Your task to perform on an android device: change alarm snooze length Image 0: 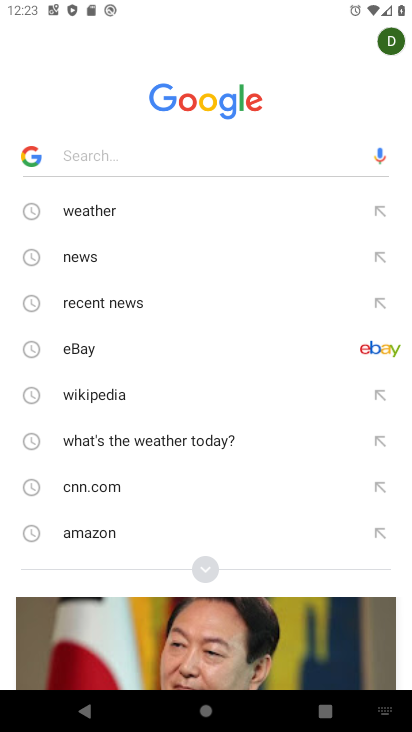
Step 0: press back button
Your task to perform on an android device: change alarm snooze length Image 1: 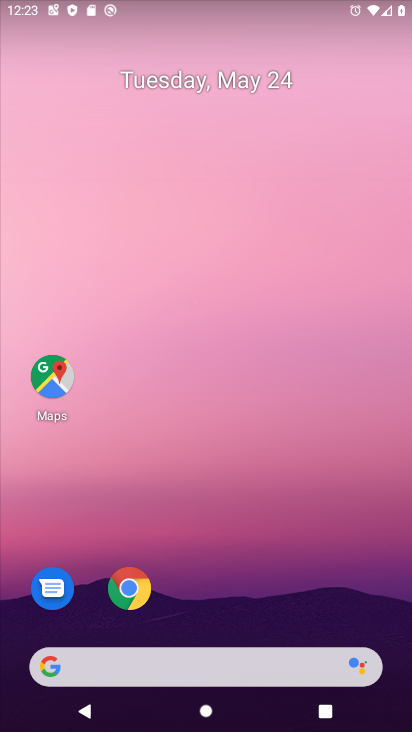
Step 1: drag from (177, 634) to (290, 105)
Your task to perform on an android device: change alarm snooze length Image 2: 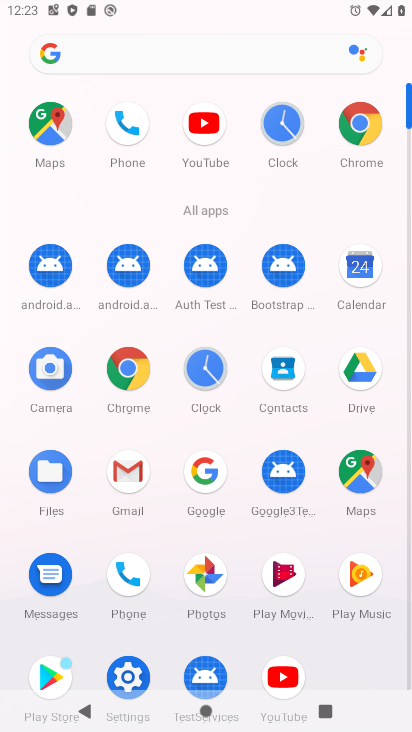
Step 2: click (211, 362)
Your task to perform on an android device: change alarm snooze length Image 3: 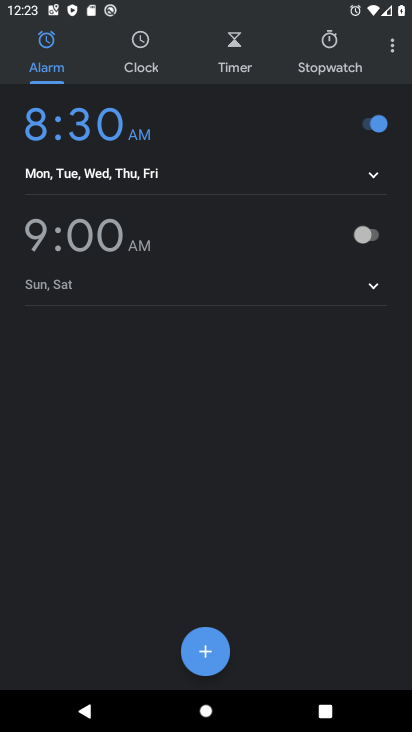
Step 3: click (386, 53)
Your task to perform on an android device: change alarm snooze length Image 4: 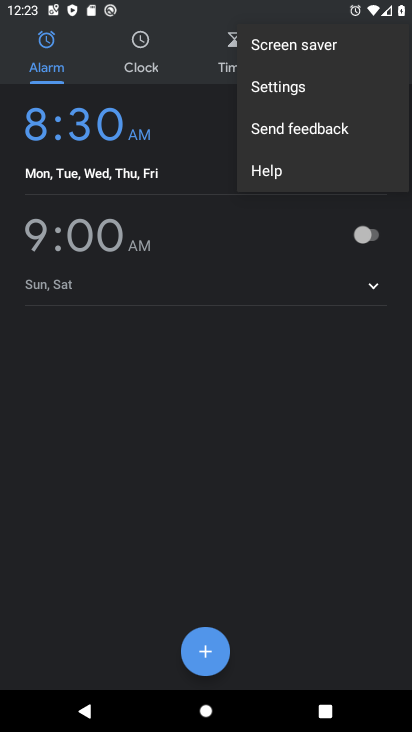
Step 4: click (360, 94)
Your task to perform on an android device: change alarm snooze length Image 5: 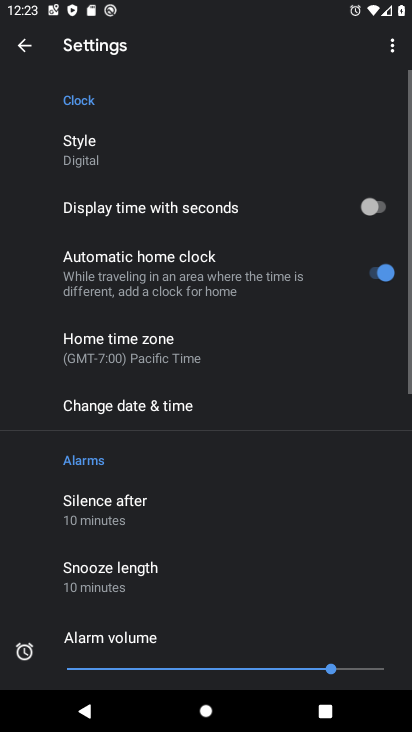
Step 5: drag from (203, 590) to (273, 368)
Your task to perform on an android device: change alarm snooze length Image 6: 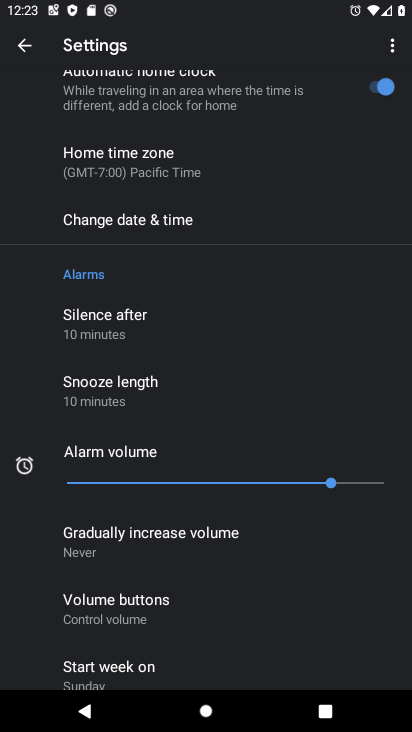
Step 6: click (210, 389)
Your task to perform on an android device: change alarm snooze length Image 7: 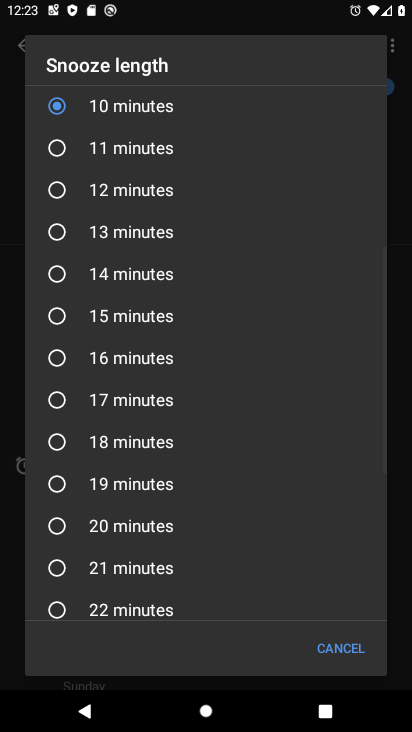
Step 7: click (154, 526)
Your task to perform on an android device: change alarm snooze length Image 8: 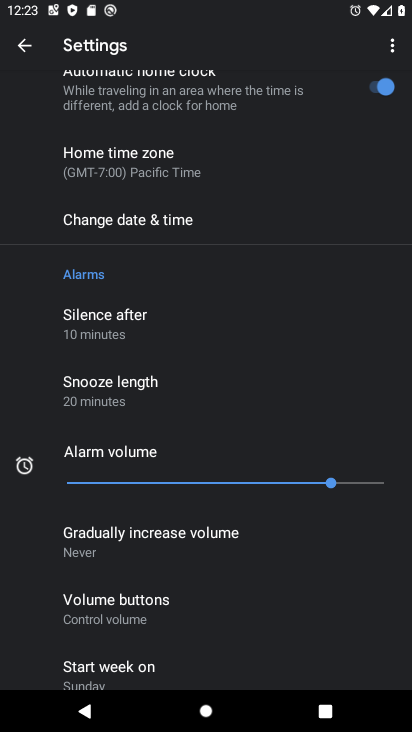
Step 8: task complete